Your task to perform on an android device: Go to Amazon Image 0: 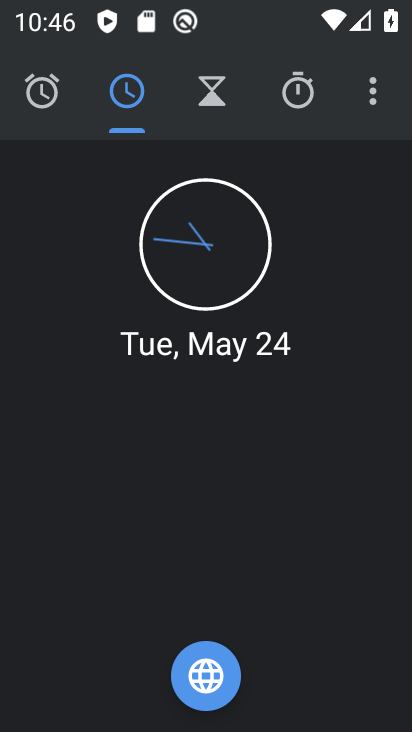
Step 0: press back button
Your task to perform on an android device: Go to Amazon Image 1: 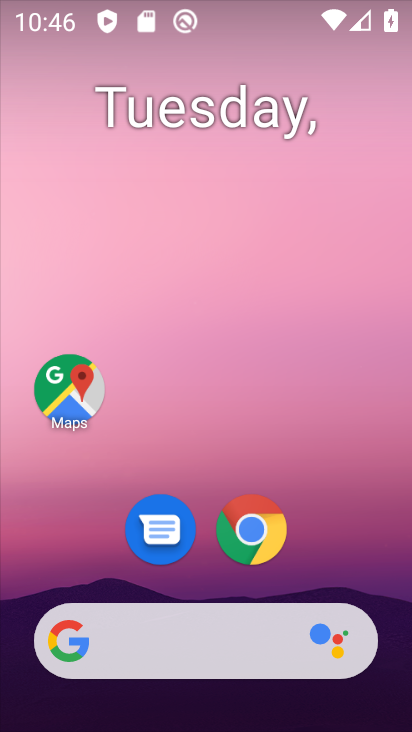
Step 1: click (250, 534)
Your task to perform on an android device: Go to Amazon Image 2: 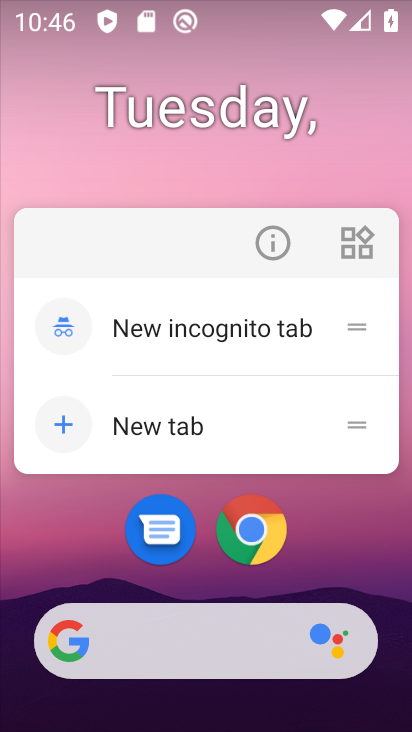
Step 2: click (251, 536)
Your task to perform on an android device: Go to Amazon Image 3: 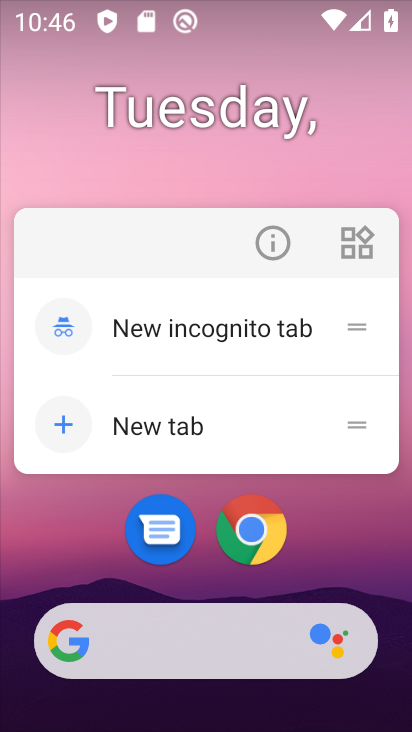
Step 3: click (252, 539)
Your task to perform on an android device: Go to Amazon Image 4: 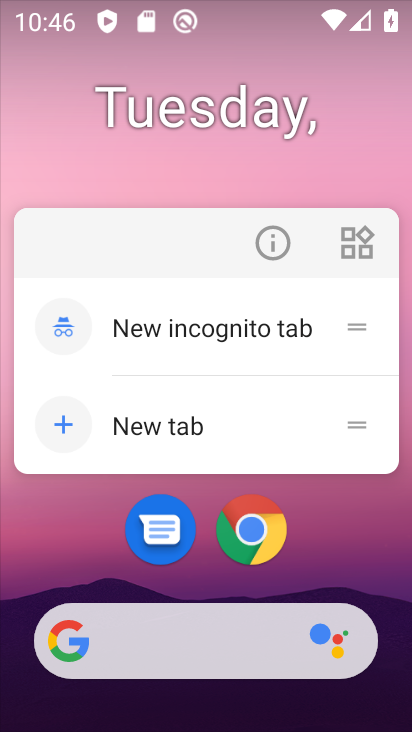
Step 4: click (252, 539)
Your task to perform on an android device: Go to Amazon Image 5: 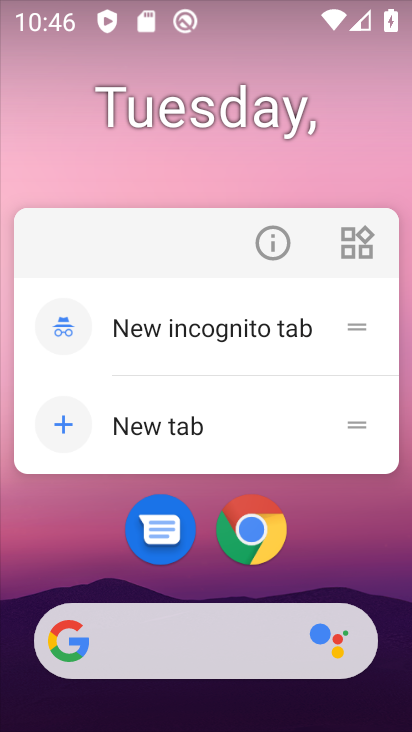
Step 5: click (254, 544)
Your task to perform on an android device: Go to Amazon Image 6: 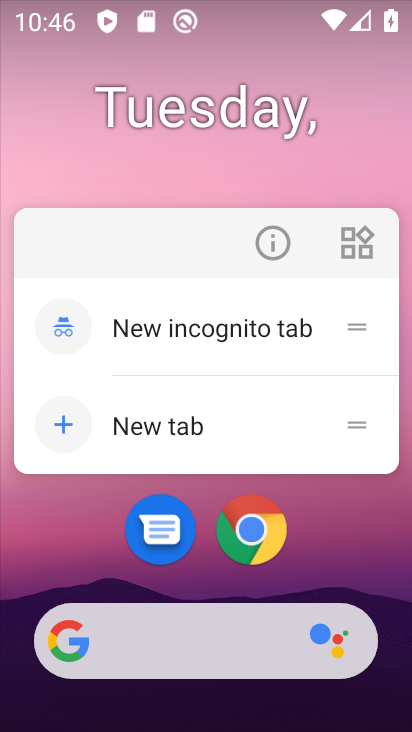
Step 6: click (257, 542)
Your task to perform on an android device: Go to Amazon Image 7: 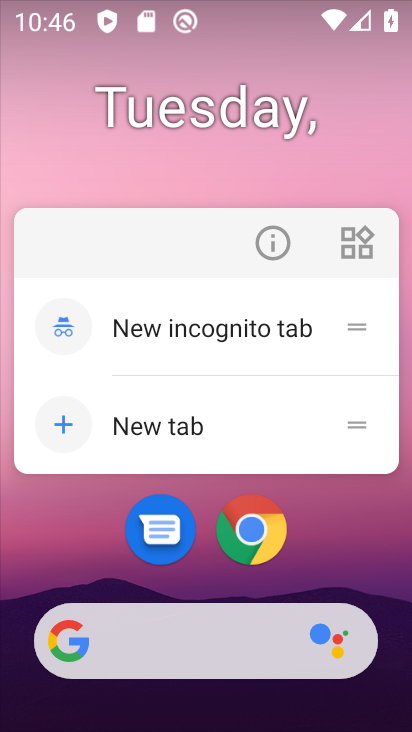
Step 7: click (258, 534)
Your task to perform on an android device: Go to Amazon Image 8: 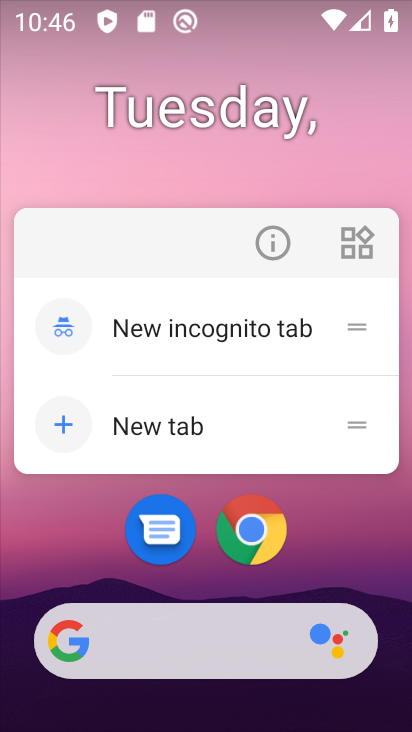
Step 8: click (258, 534)
Your task to perform on an android device: Go to Amazon Image 9: 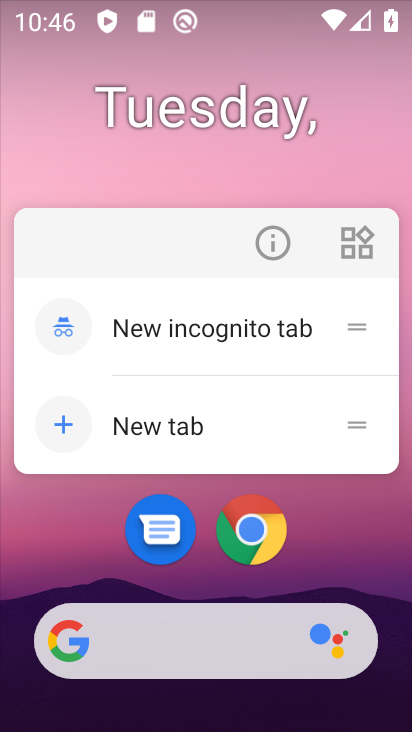
Step 9: click (258, 534)
Your task to perform on an android device: Go to Amazon Image 10: 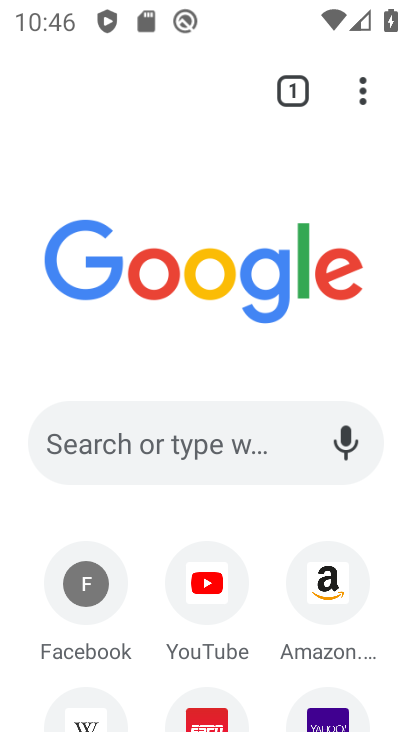
Step 10: click (334, 602)
Your task to perform on an android device: Go to Amazon Image 11: 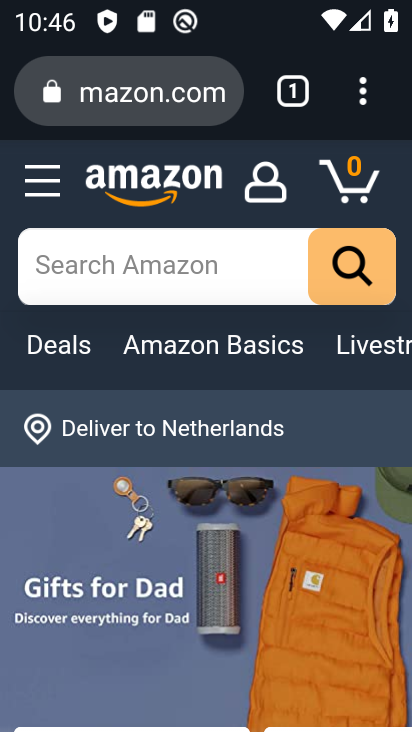
Step 11: task complete